Your task to perform on an android device: visit the assistant section in the google photos Image 0: 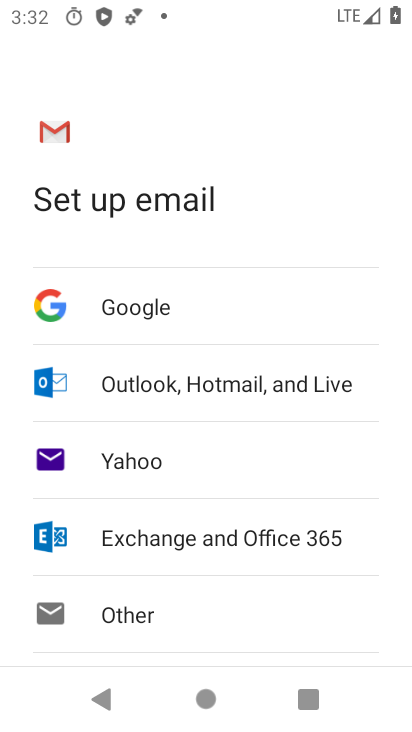
Step 0: press home button
Your task to perform on an android device: visit the assistant section in the google photos Image 1: 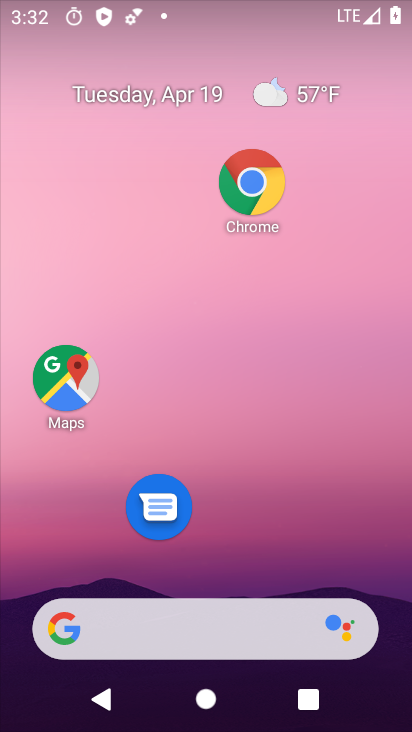
Step 1: drag from (282, 496) to (291, 14)
Your task to perform on an android device: visit the assistant section in the google photos Image 2: 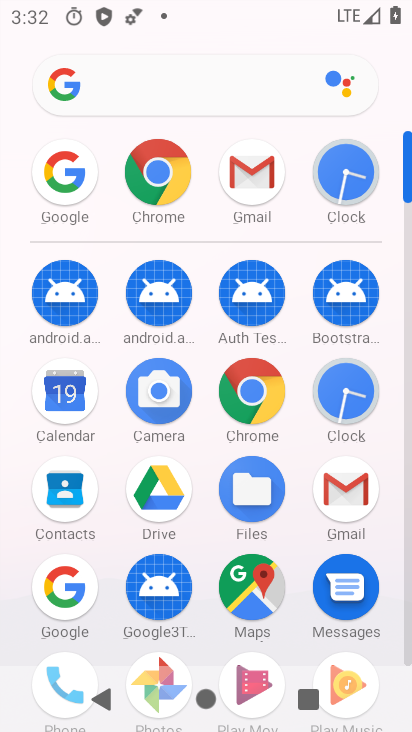
Step 2: click (161, 651)
Your task to perform on an android device: visit the assistant section in the google photos Image 3: 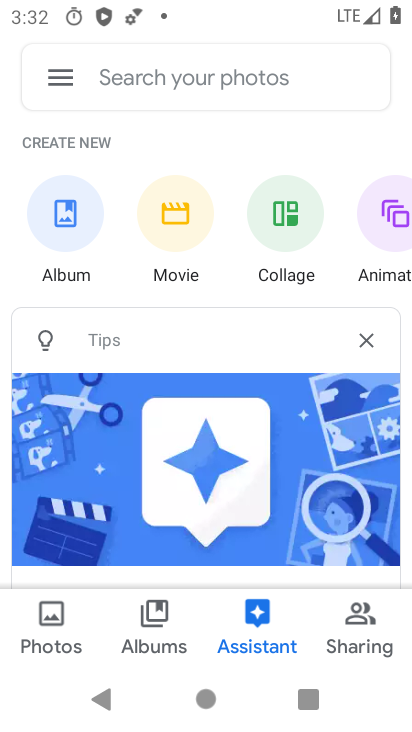
Step 3: click (260, 631)
Your task to perform on an android device: visit the assistant section in the google photos Image 4: 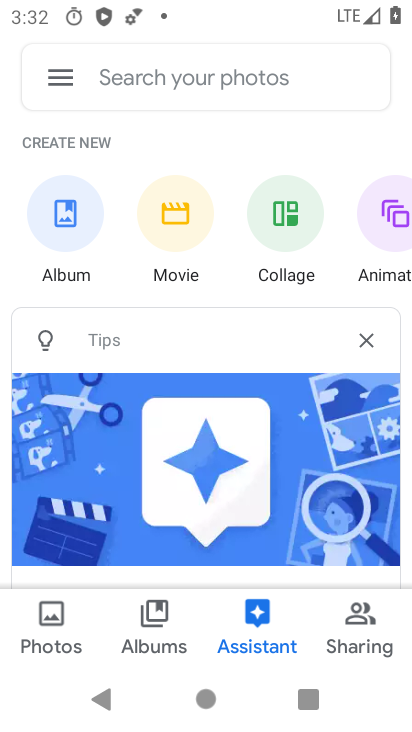
Step 4: task complete